Your task to perform on an android device: Open Chrome and go to settings Image 0: 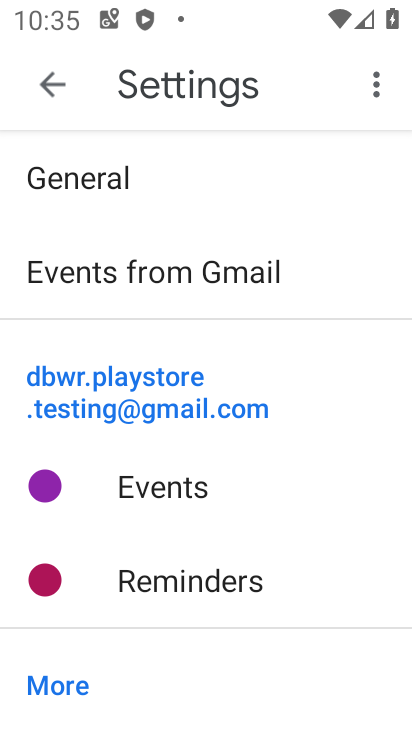
Step 0: press home button
Your task to perform on an android device: Open Chrome and go to settings Image 1: 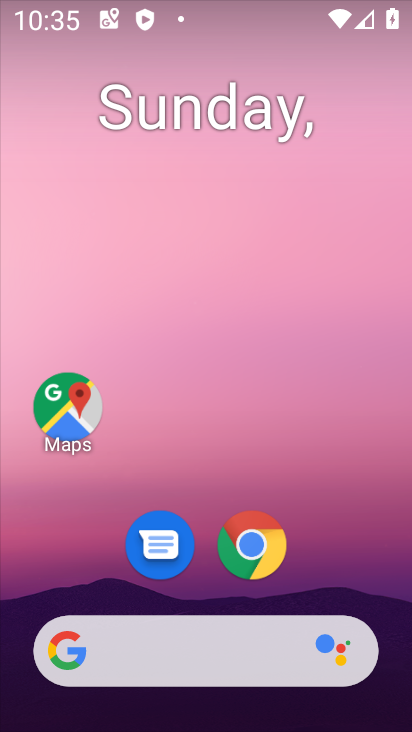
Step 1: click (254, 550)
Your task to perform on an android device: Open Chrome and go to settings Image 2: 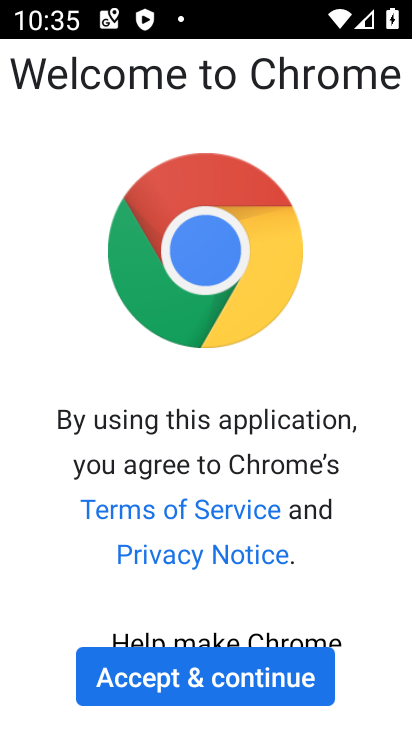
Step 2: click (246, 679)
Your task to perform on an android device: Open Chrome and go to settings Image 3: 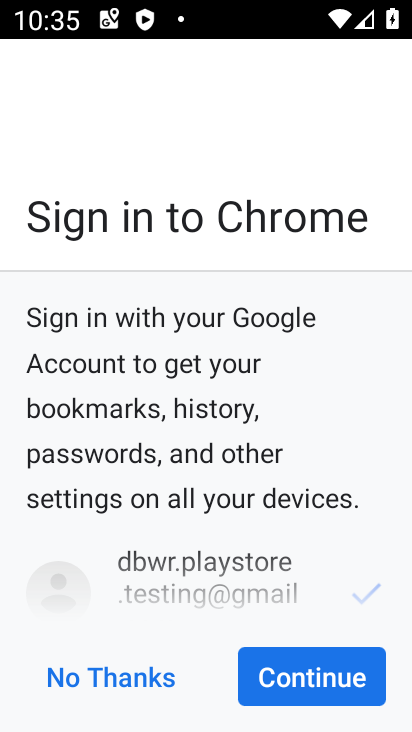
Step 3: click (313, 691)
Your task to perform on an android device: Open Chrome and go to settings Image 4: 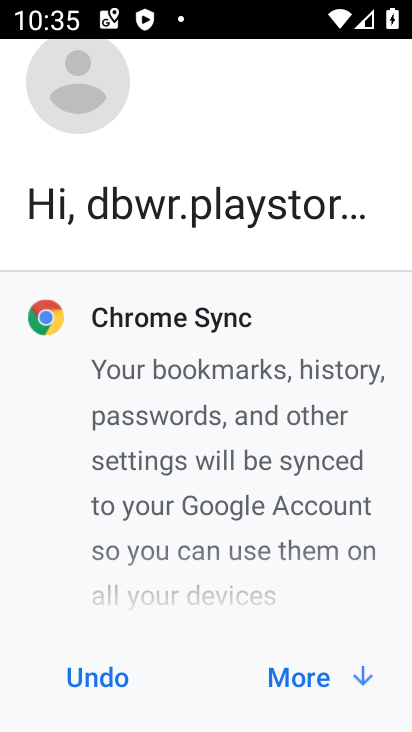
Step 4: click (312, 690)
Your task to perform on an android device: Open Chrome and go to settings Image 5: 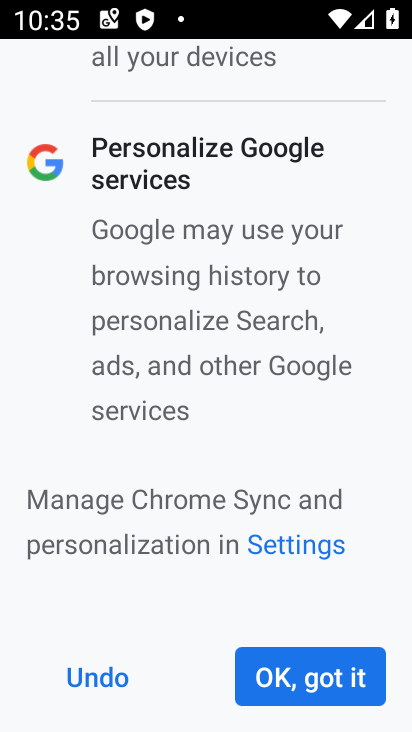
Step 5: click (311, 691)
Your task to perform on an android device: Open Chrome and go to settings Image 6: 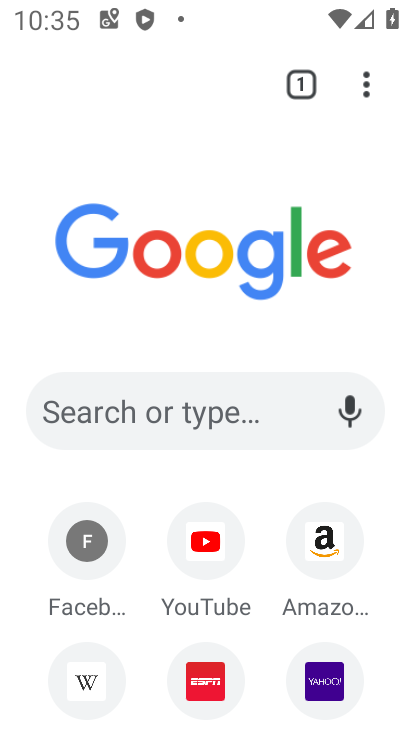
Step 6: click (371, 93)
Your task to perform on an android device: Open Chrome and go to settings Image 7: 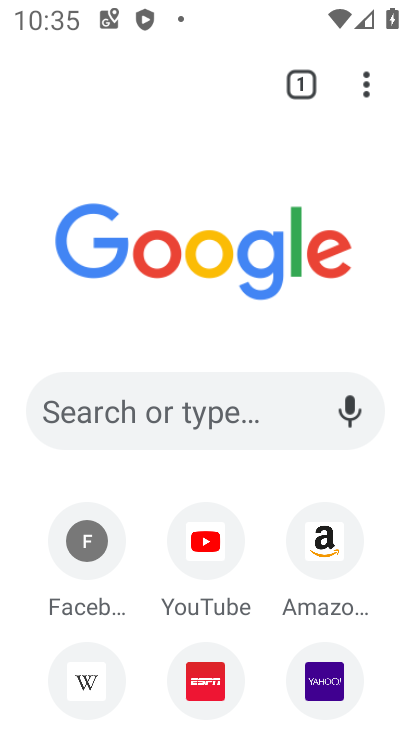
Step 7: task complete